Your task to perform on an android device: Empty the shopping cart on bestbuy.com. Add macbook pro 13 inch to the cart on bestbuy.com, then select checkout. Image 0: 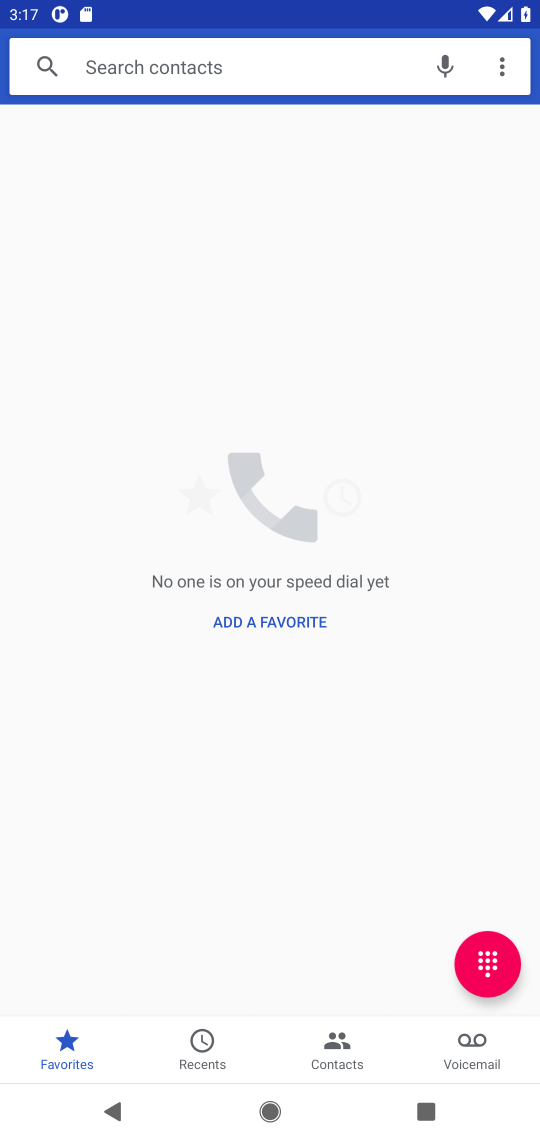
Step 0: press home button
Your task to perform on an android device: Empty the shopping cart on bestbuy.com. Add macbook pro 13 inch to the cart on bestbuy.com, then select checkout. Image 1: 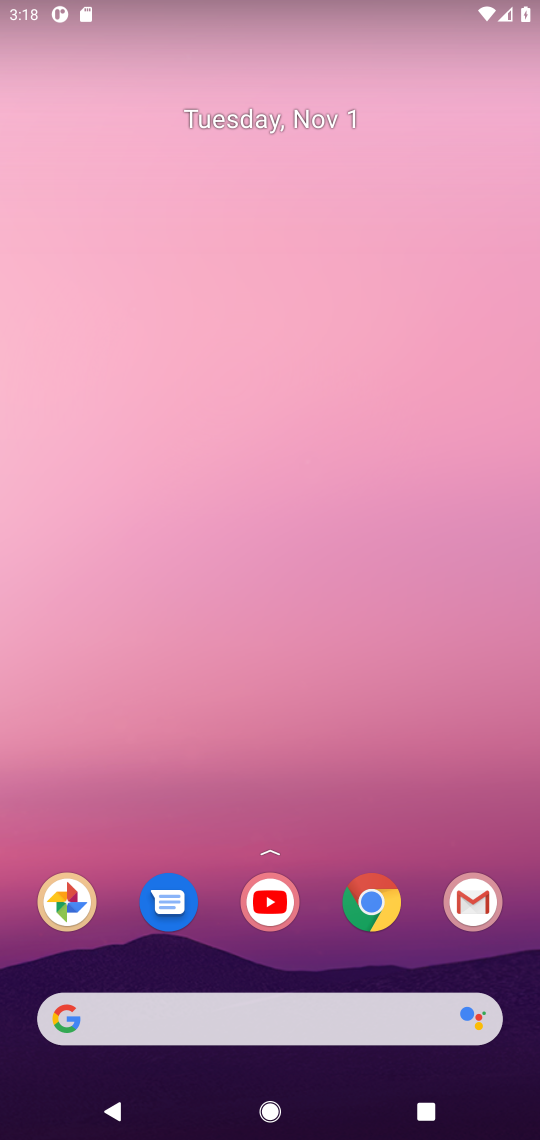
Step 1: click (371, 905)
Your task to perform on an android device: Empty the shopping cart on bestbuy.com. Add macbook pro 13 inch to the cart on bestbuy.com, then select checkout. Image 2: 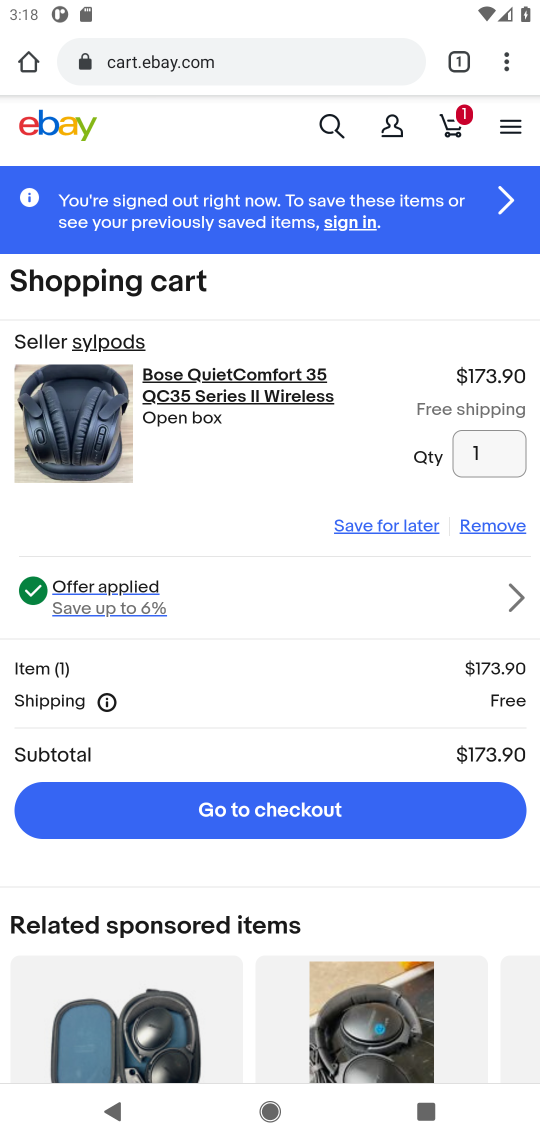
Step 2: click (207, 55)
Your task to perform on an android device: Empty the shopping cart on bestbuy.com. Add macbook pro 13 inch to the cart on bestbuy.com, then select checkout. Image 3: 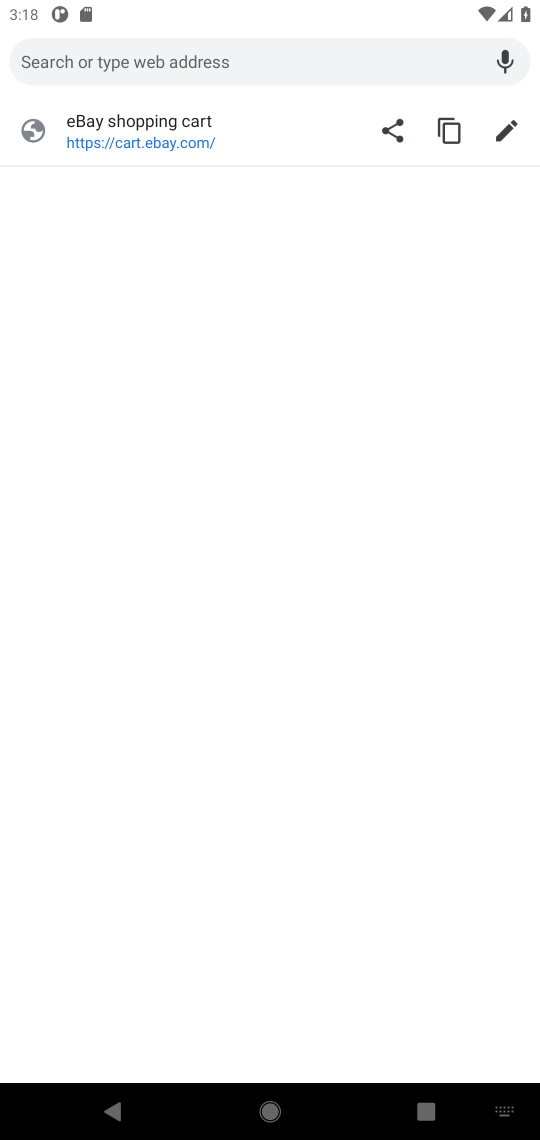
Step 3: type "bestbuy.com"
Your task to perform on an android device: Empty the shopping cart on bestbuy.com. Add macbook pro 13 inch to the cart on bestbuy.com, then select checkout. Image 4: 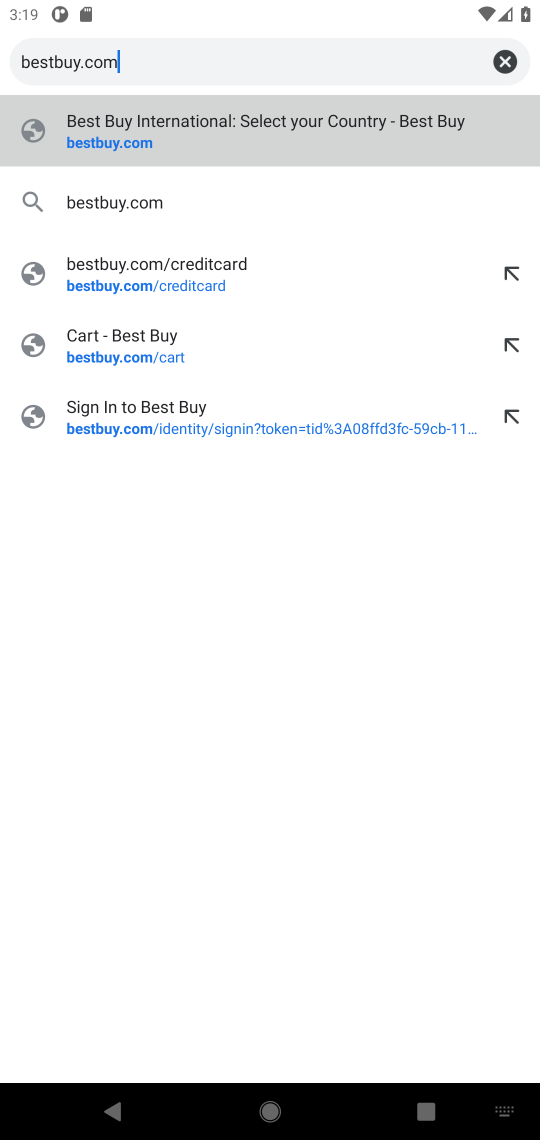
Step 4: click (136, 203)
Your task to perform on an android device: Empty the shopping cart on bestbuy.com. Add macbook pro 13 inch to the cart on bestbuy.com, then select checkout. Image 5: 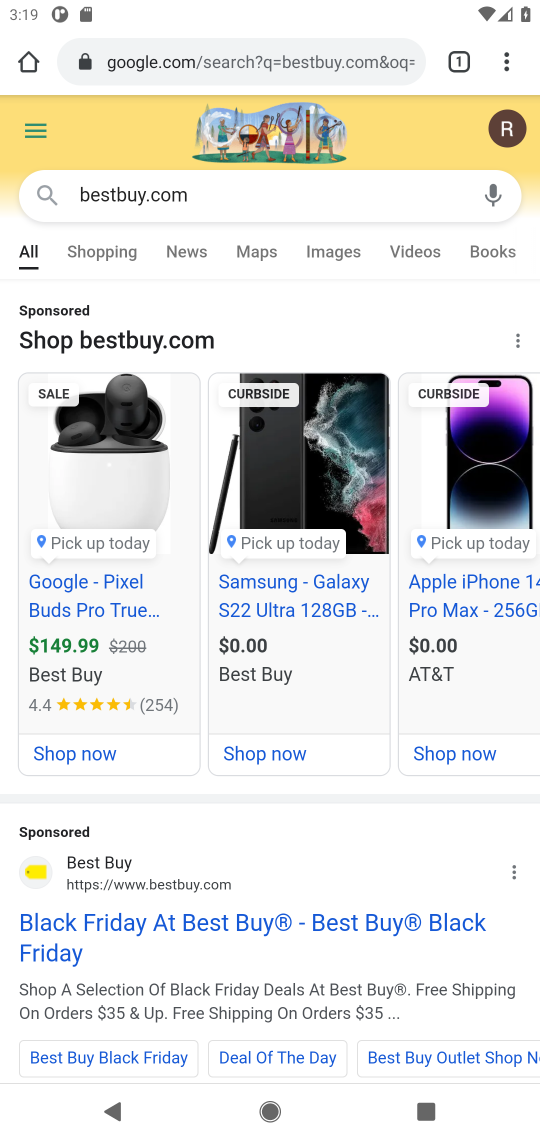
Step 5: drag from (262, 869) to (266, 407)
Your task to perform on an android device: Empty the shopping cart on bestbuy.com. Add macbook pro 13 inch to the cart on bestbuy.com, then select checkout. Image 6: 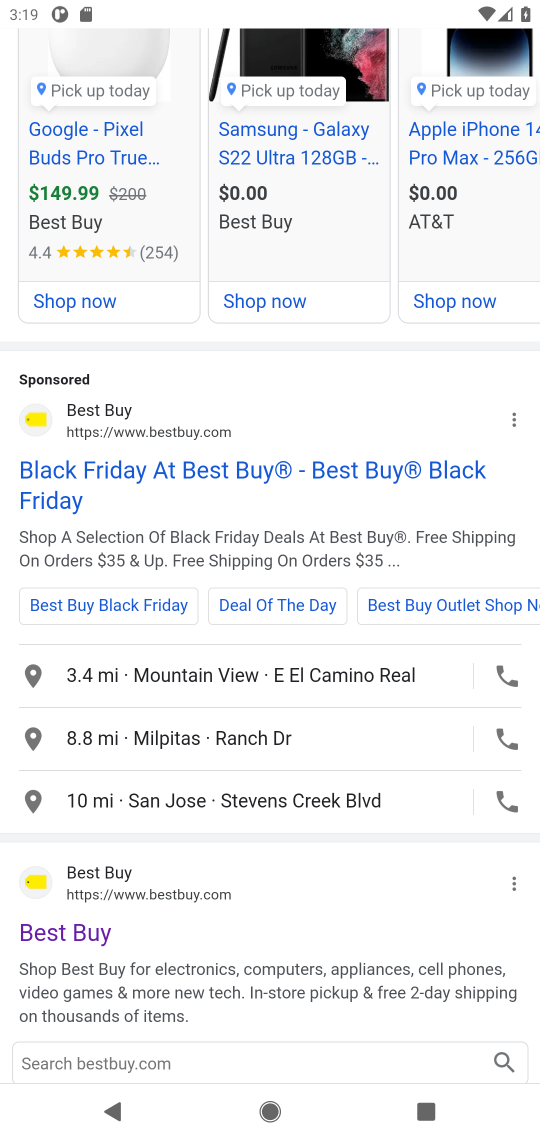
Step 6: click (85, 929)
Your task to perform on an android device: Empty the shopping cart on bestbuy.com. Add macbook pro 13 inch to the cart on bestbuy.com, then select checkout. Image 7: 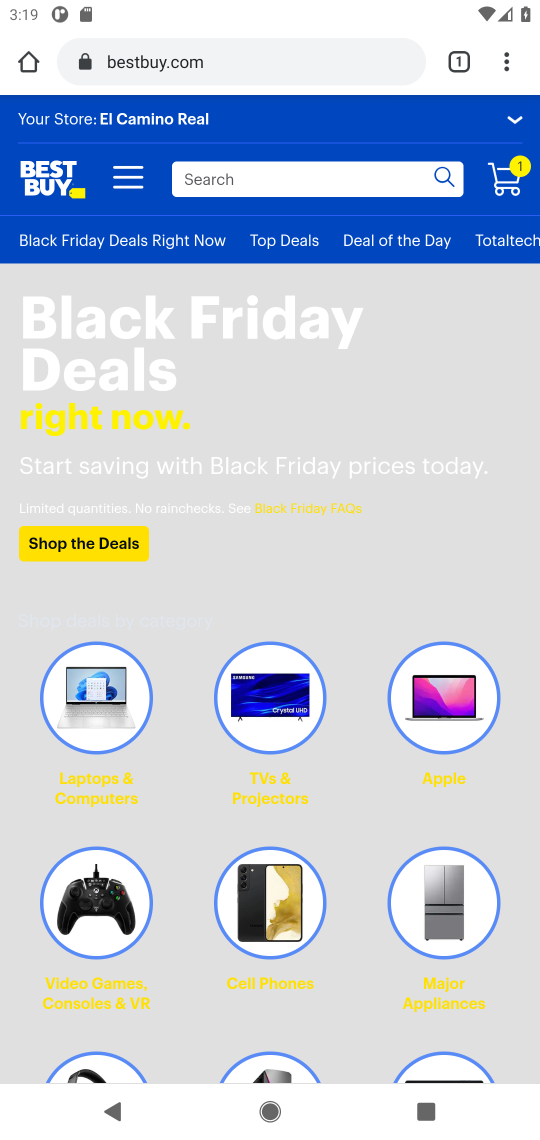
Step 7: click (504, 172)
Your task to perform on an android device: Empty the shopping cart on bestbuy.com. Add macbook pro 13 inch to the cart on bestbuy.com, then select checkout. Image 8: 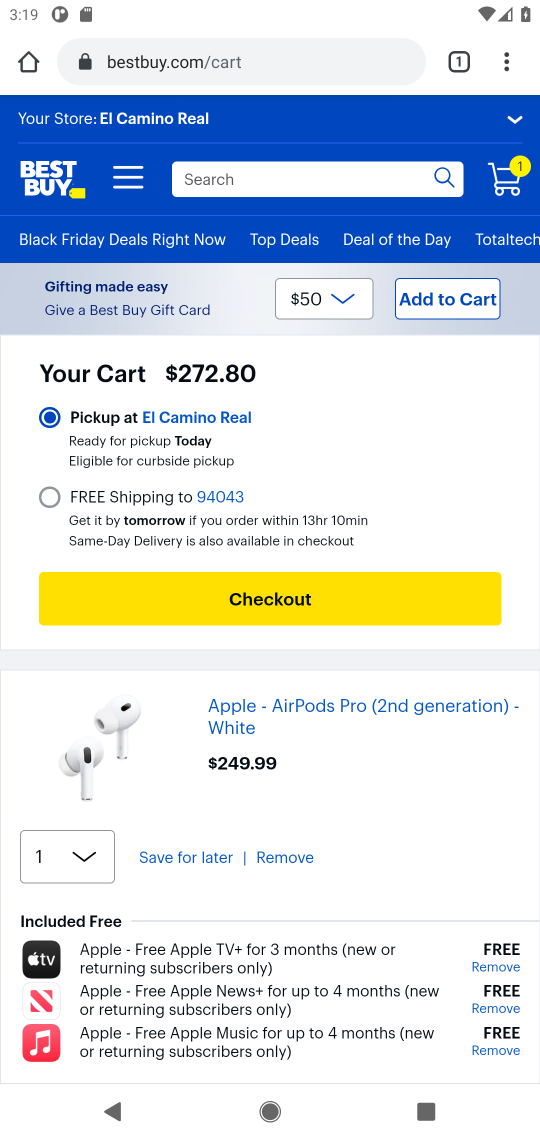
Step 8: click (275, 849)
Your task to perform on an android device: Empty the shopping cart on bestbuy.com. Add macbook pro 13 inch to the cart on bestbuy.com, then select checkout. Image 9: 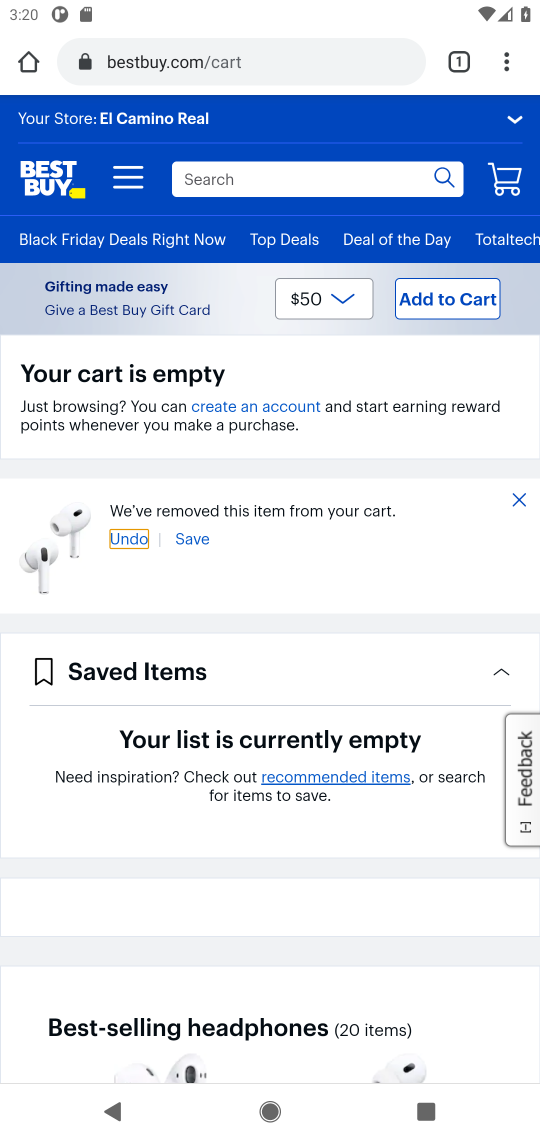
Step 9: click (310, 183)
Your task to perform on an android device: Empty the shopping cart on bestbuy.com. Add macbook pro 13 inch to the cart on bestbuy.com, then select checkout. Image 10: 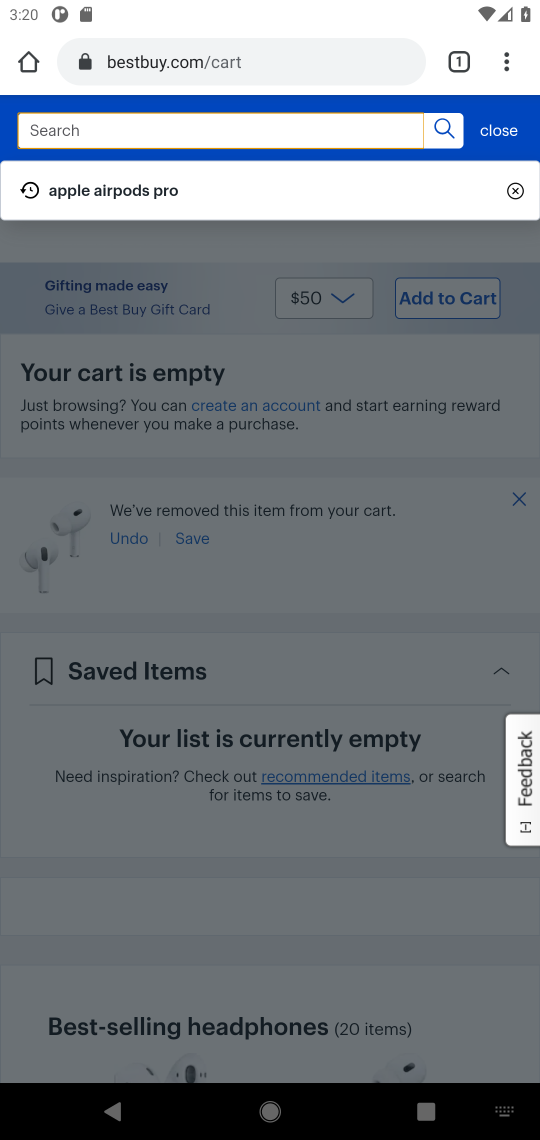
Step 10: type "macbook pro 13 inch"
Your task to perform on an android device: Empty the shopping cart on bestbuy.com. Add macbook pro 13 inch to the cart on bestbuy.com, then select checkout. Image 11: 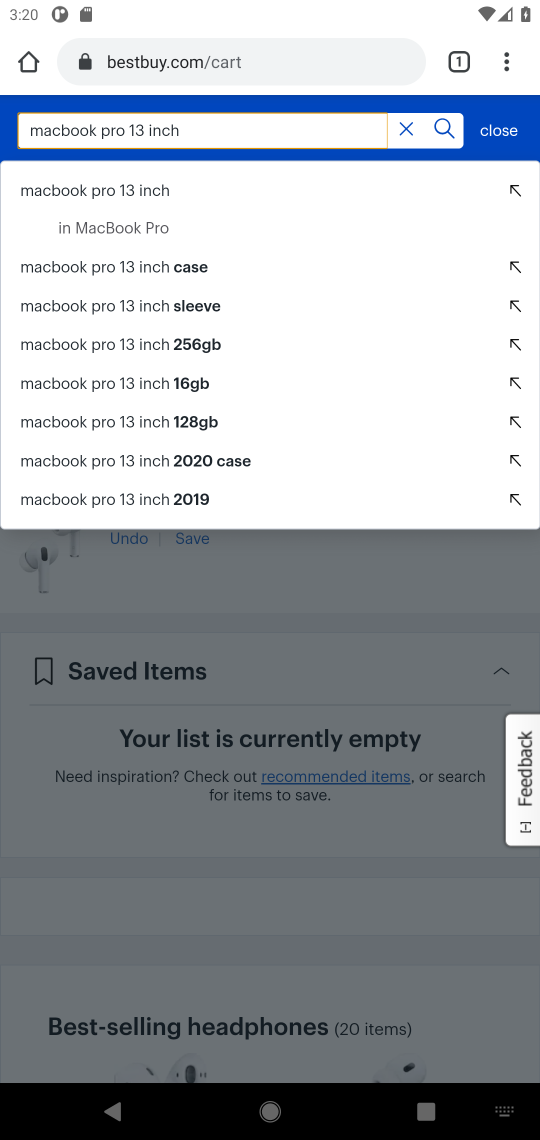
Step 11: click (446, 132)
Your task to perform on an android device: Empty the shopping cart on bestbuy.com. Add macbook pro 13 inch to the cart on bestbuy.com, then select checkout. Image 12: 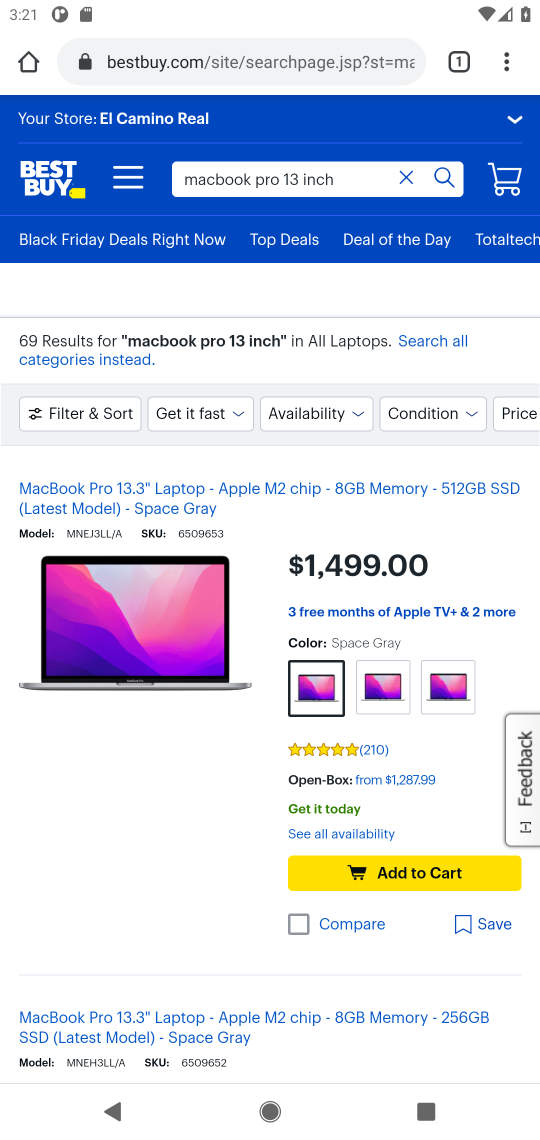
Step 12: click (404, 868)
Your task to perform on an android device: Empty the shopping cart on bestbuy.com. Add macbook pro 13 inch to the cart on bestbuy.com, then select checkout. Image 13: 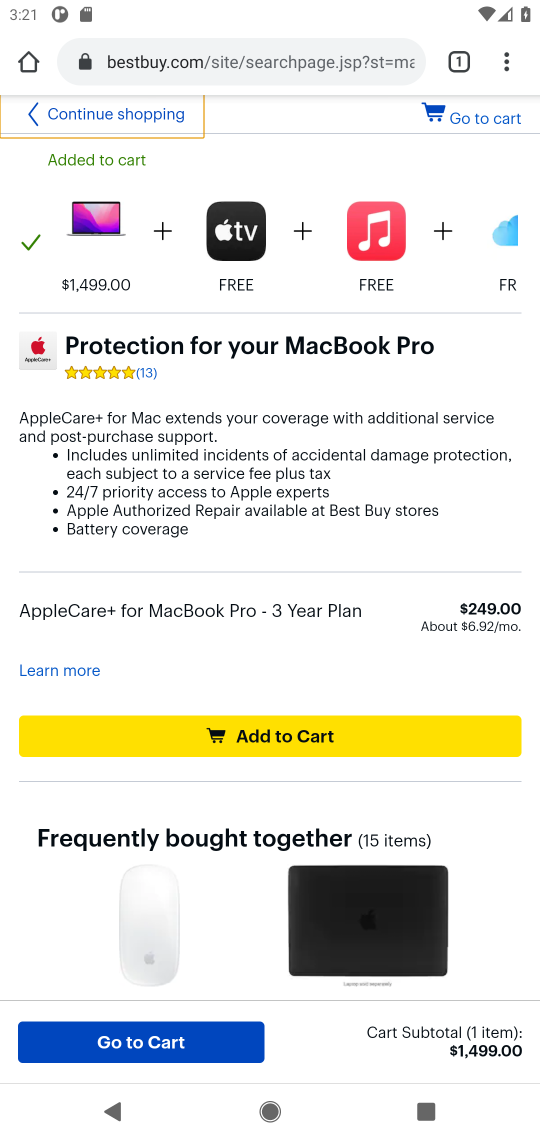
Step 13: click (472, 116)
Your task to perform on an android device: Empty the shopping cart on bestbuy.com. Add macbook pro 13 inch to the cart on bestbuy.com, then select checkout. Image 14: 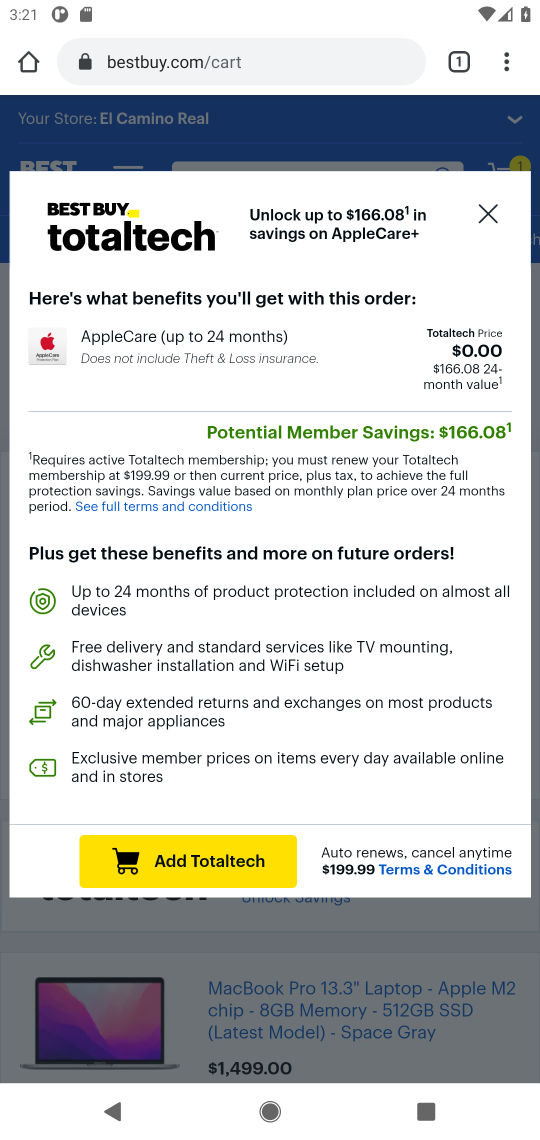
Step 14: click (486, 216)
Your task to perform on an android device: Empty the shopping cart on bestbuy.com. Add macbook pro 13 inch to the cart on bestbuy.com, then select checkout. Image 15: 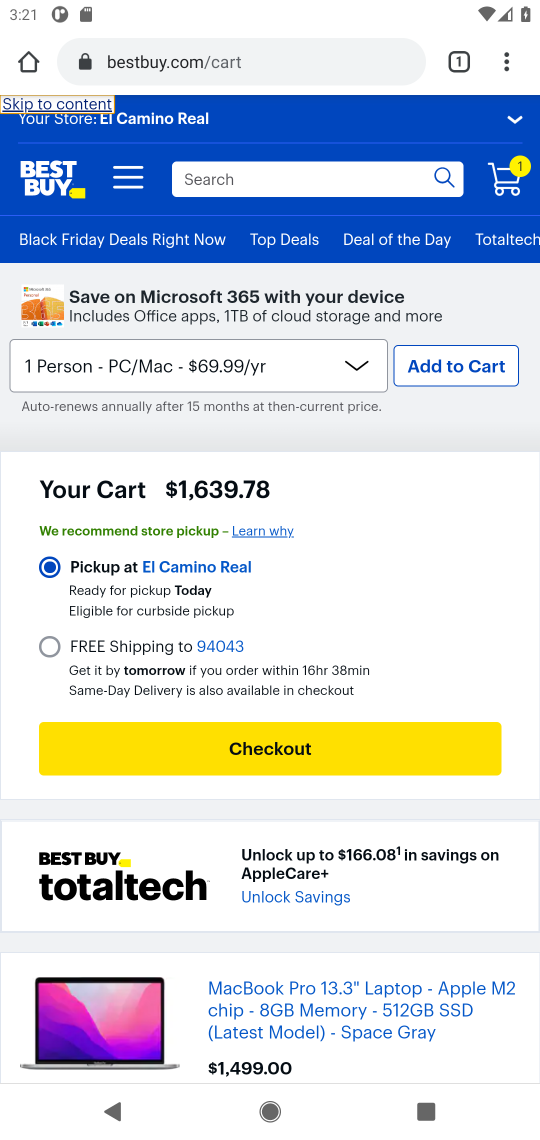
Step 15: click (265, 748)
Your task to perform on an android device: Empty the shopping cart on bestbuy.com. Add macbook pro 13 inch to the cart on bestbuy.com, then select checkout. Image 16: 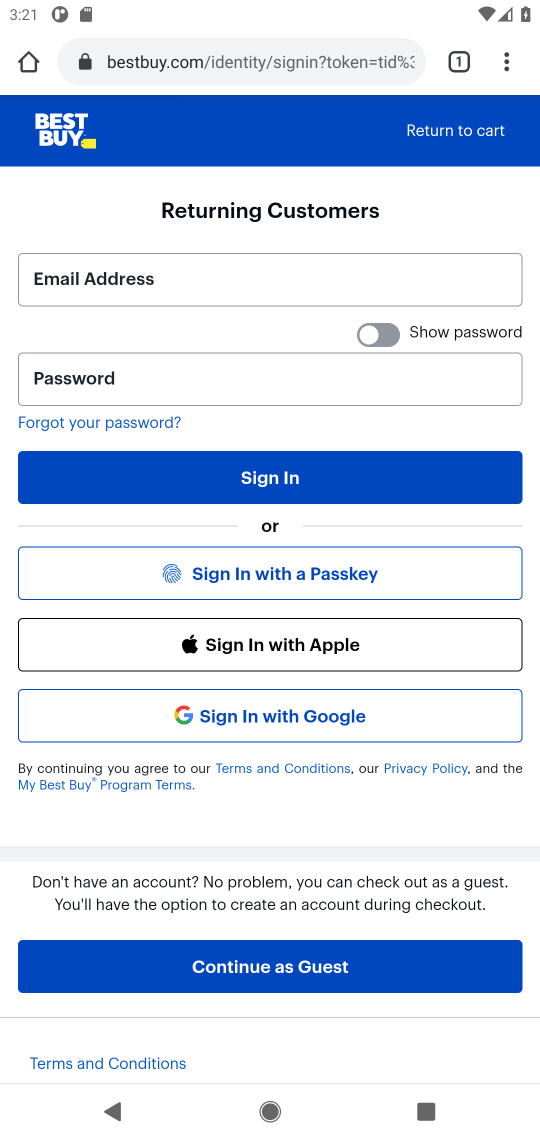
Step 16: task complete